Your task to perform on an android device: refresh tabs in the chrome app Image 0: 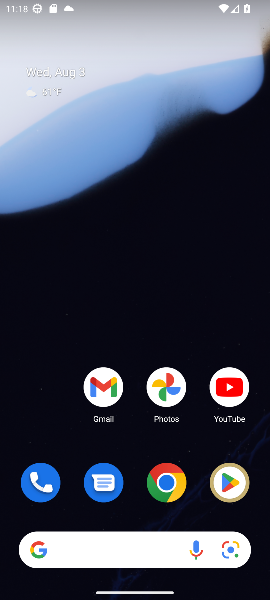
Step 0: click (171, 491)
Your task to perform on an android device: refresh tabs in the chrome app Image 1: 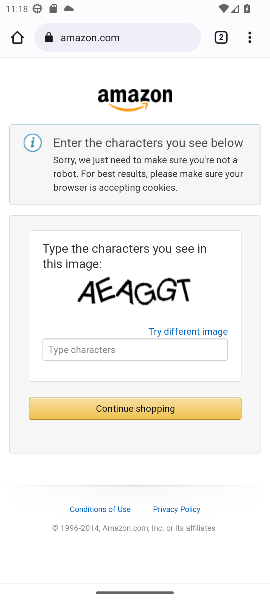
Step 1: click (251, 50)
Your task to perform on an android device: refresh tabs in the chrome app Image 2: 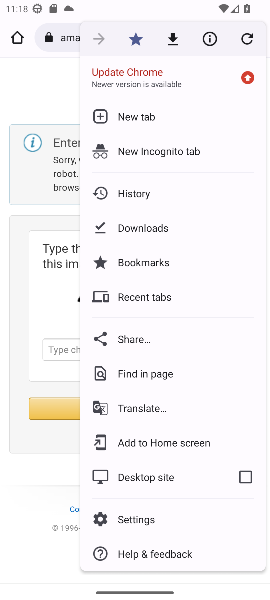
Step 2: click (238, 39)
Your task to perform on an android device: refresh tabs in the chrome app Image 3: 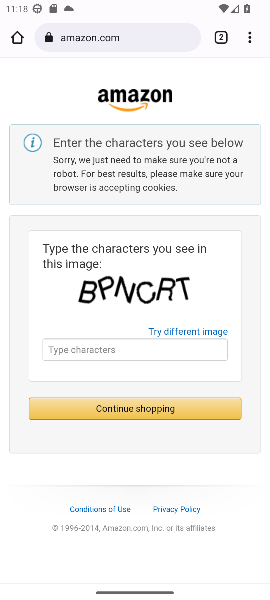
Step 3: task complete